Your task to perform on an android device: When is my next appointment? Image 0: 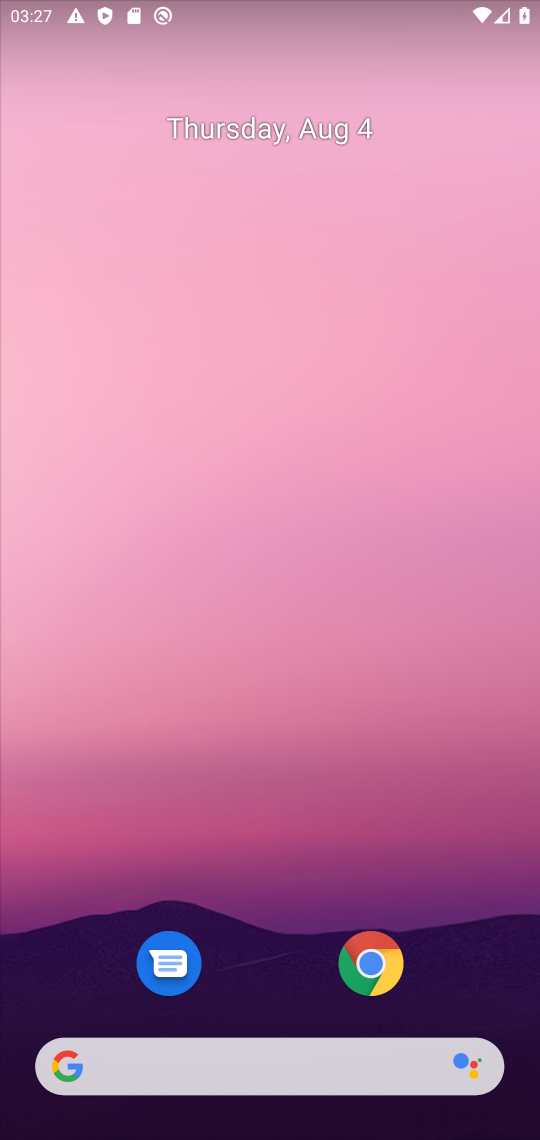
Step 0: drag from (284, 975) to (357, 102)
Your task to perform on an android device: When is my next appointment? Image 1: 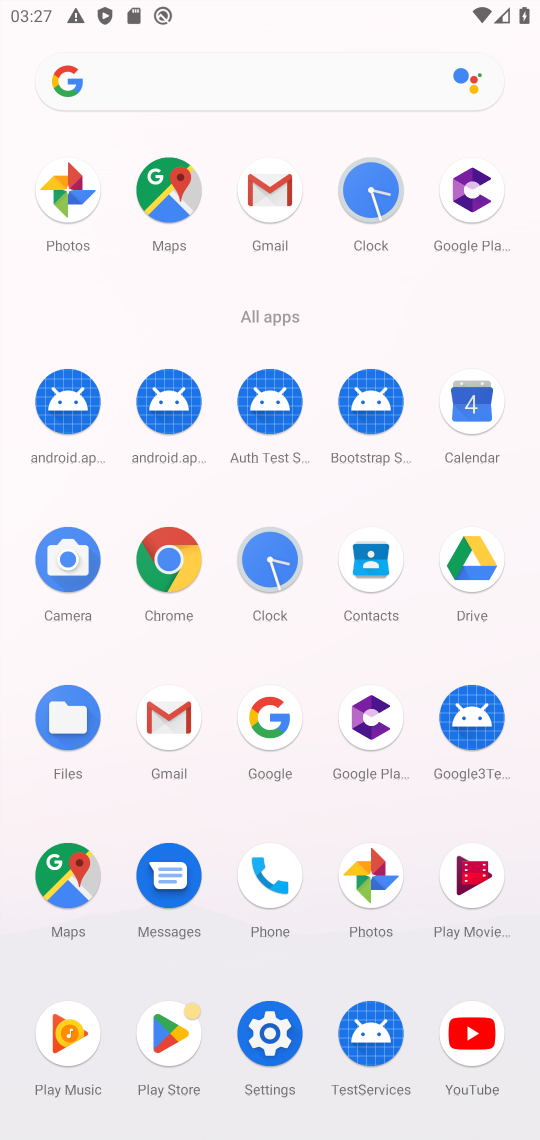
Step 1: click (465, 416)
Your task to perform on an android device: When is my next appointment? Image 2: 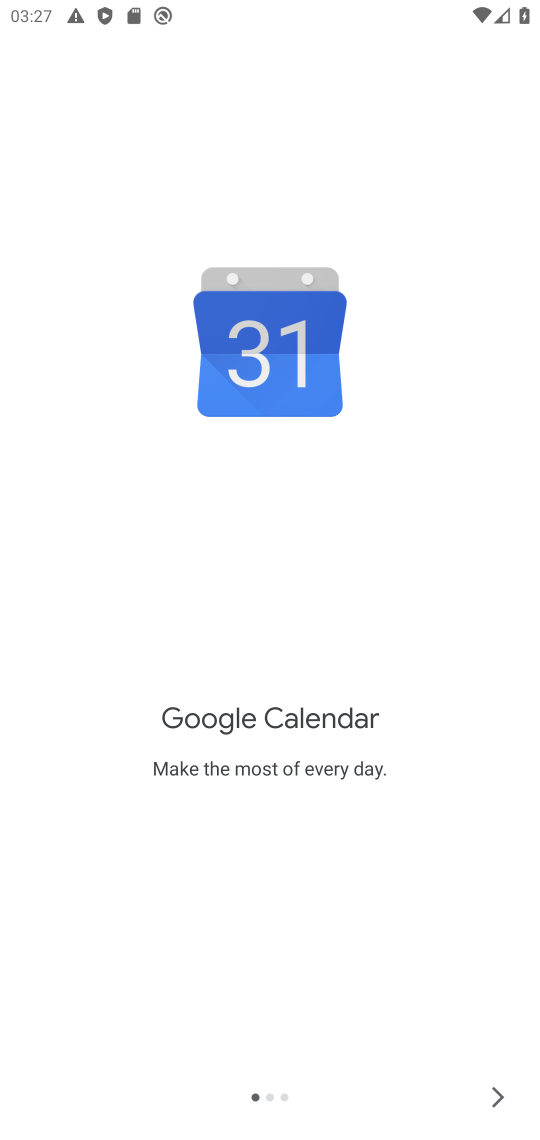
Step 2: click (495, 1119)
Your task to perform on an android device: When is my next appointment? Image 3: 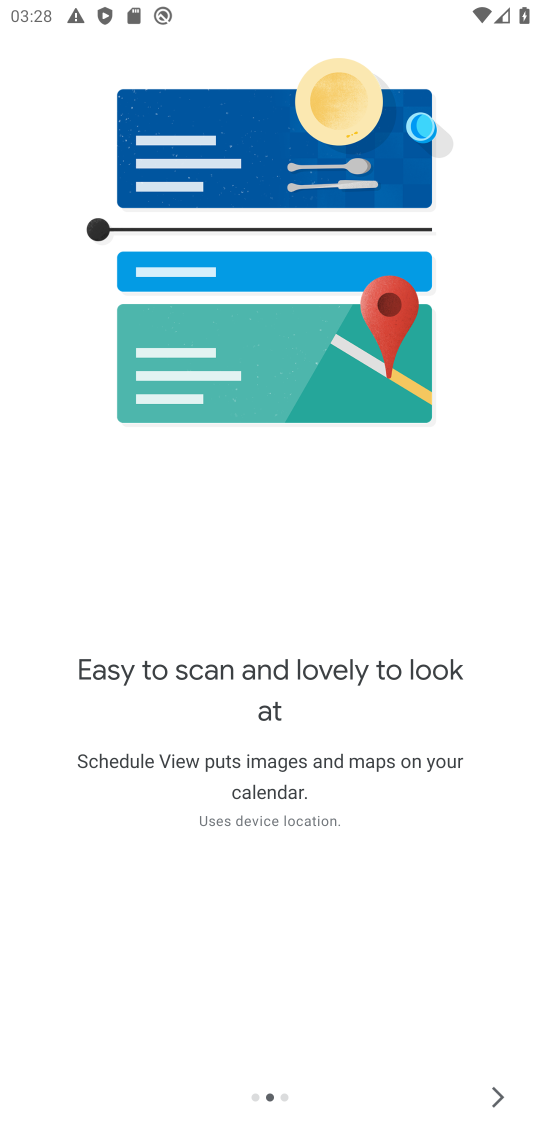
Step 3: click (496, 1119)
Your task to perform on an android device: When is my next appointment? Image 4: 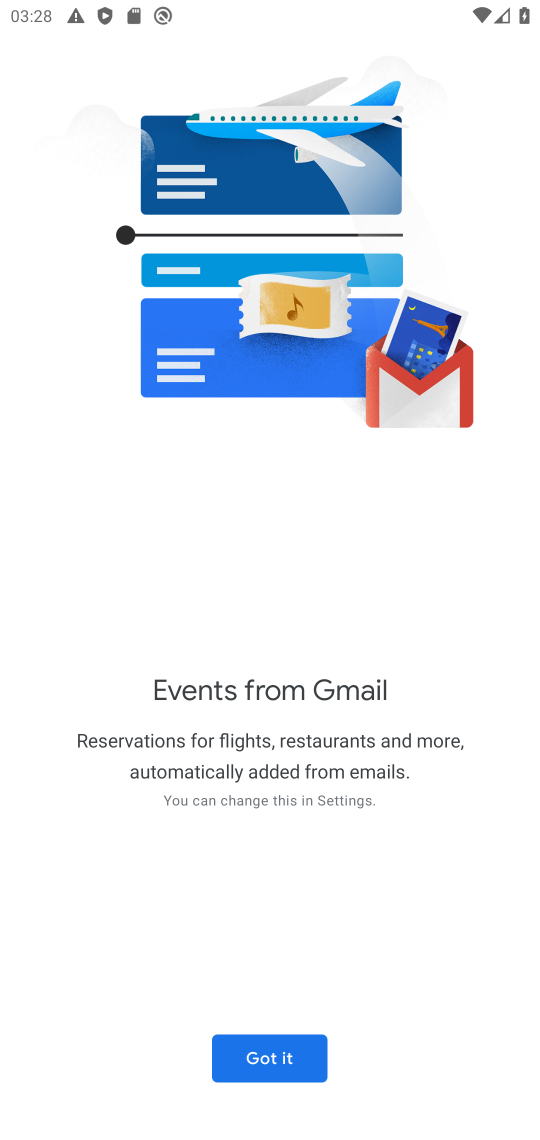
Step 4: click (283, 1049)
Your task to perform on an android device: When is my next appointment? Image 5: 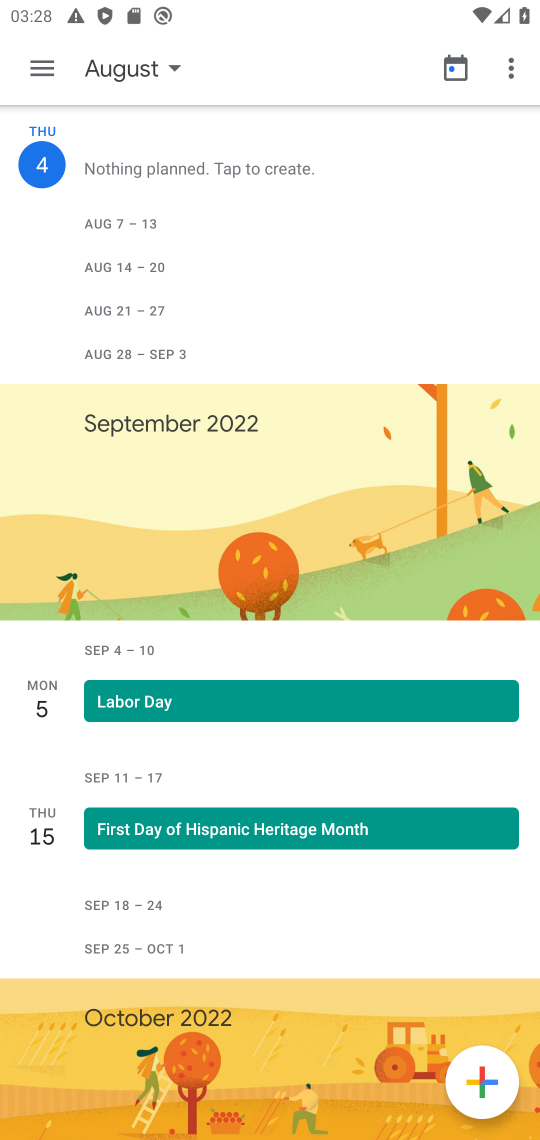
Step 5: click (56, 69)
Your task to perform on an android device: When is my next appointment? Image 6: 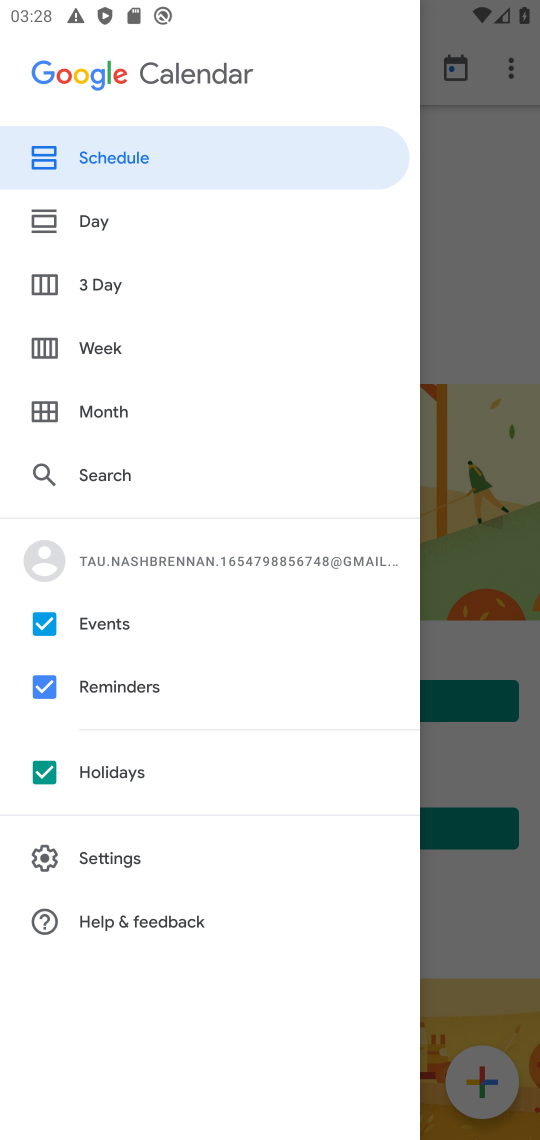
Step 6: click (33, 688)
Your task to perform on an android device: When is my next appointment? Image 7: 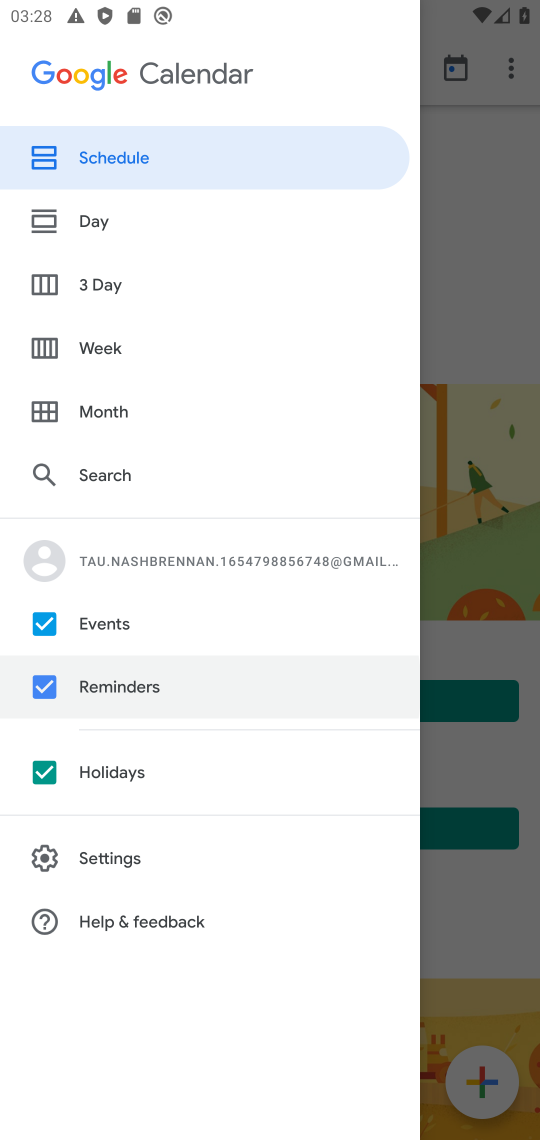
Step 7: click (39, 773)
Your task to perform on an android device: When is my next appointment? Image 8: 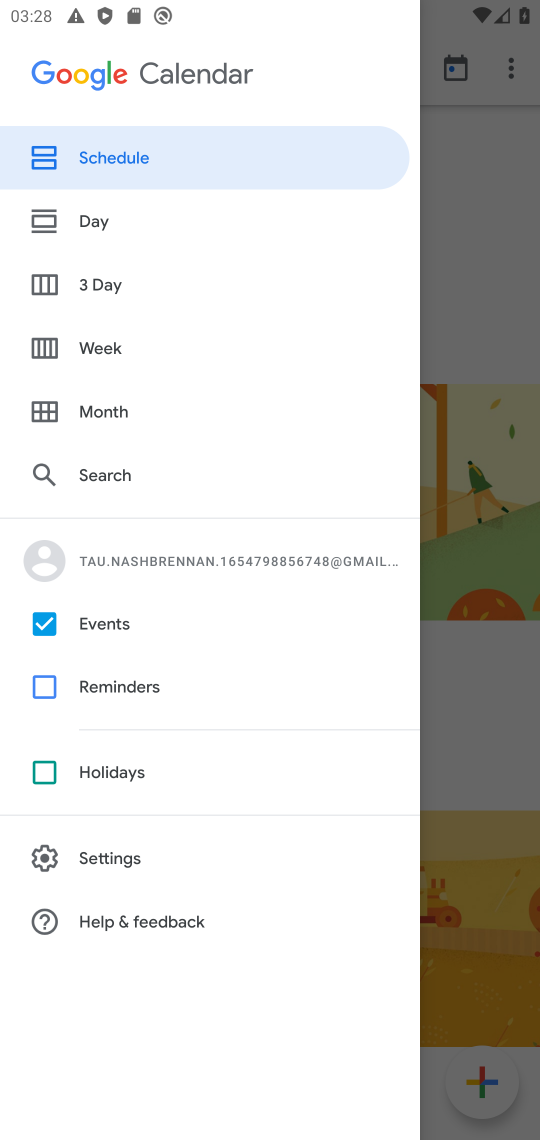
Step 8: click (71, 163)
Your task to perform on an android device: When is my next appointment? Image 9: 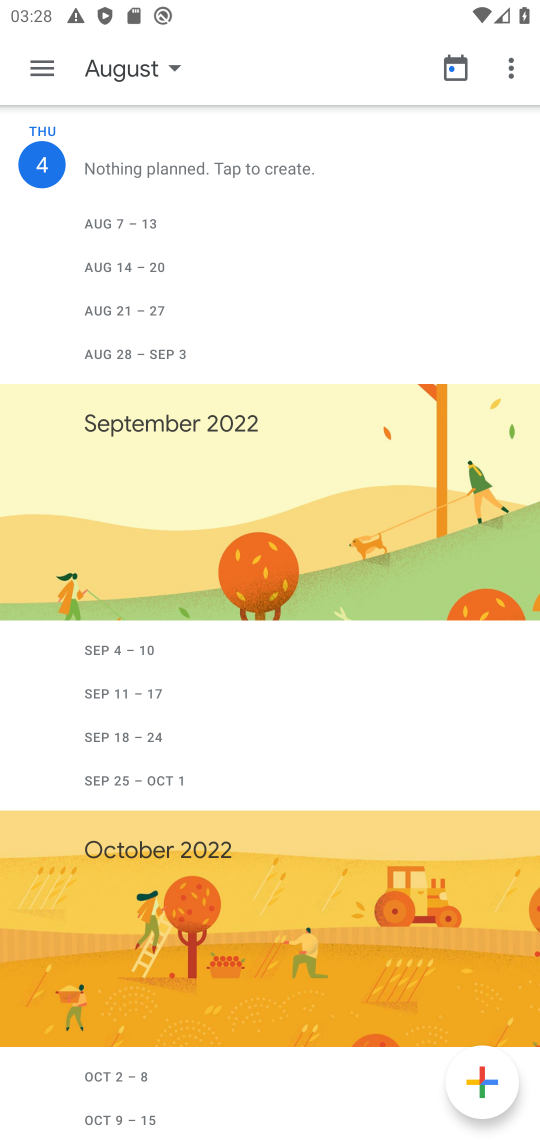
Step 9: task complete